Your task to perform on an android device: Open Google Chrome Image 0: 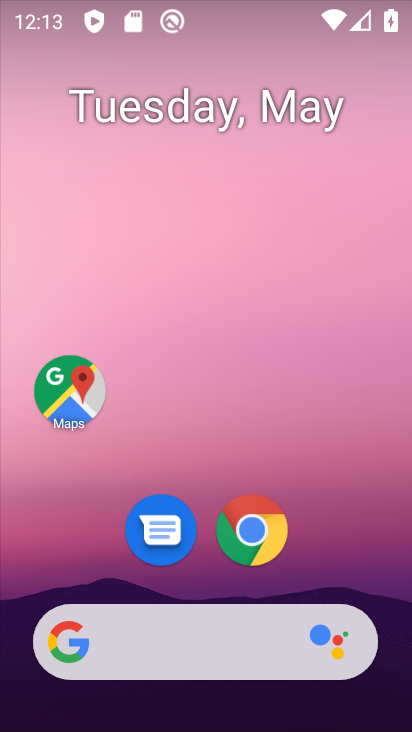
Step 0: drag from (356, 517) to (272, 19)
Your task to perform on an android device: Open Google Chrome Image 1: 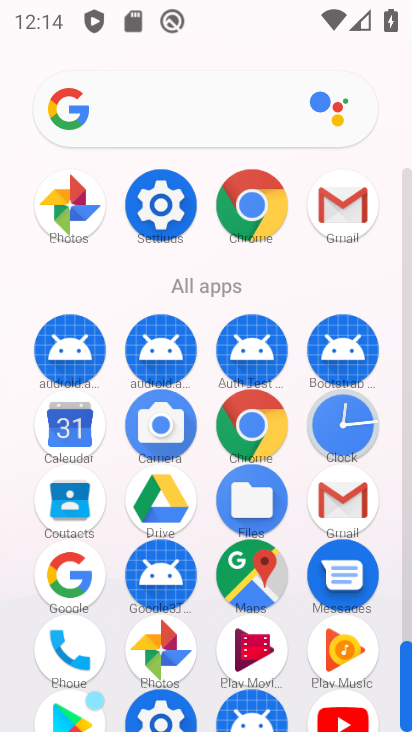
Step 1: click (250, 201)
Your task to perform on an android device: Open Google Chrome Image 2: 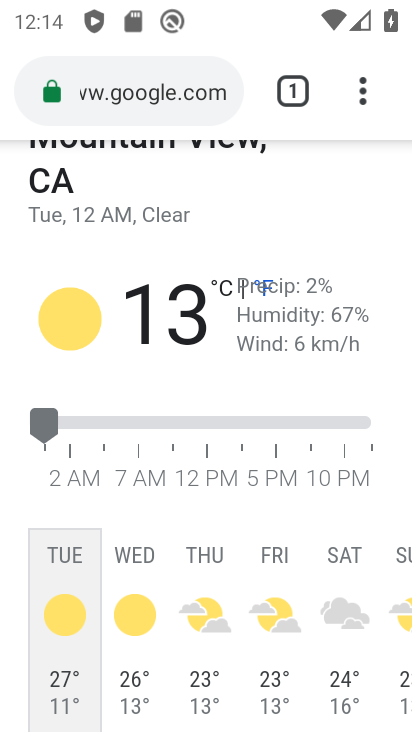
Step 2: task complete